Your task to perform on an android device: turn on showing notifications on the lock screen Image 0: 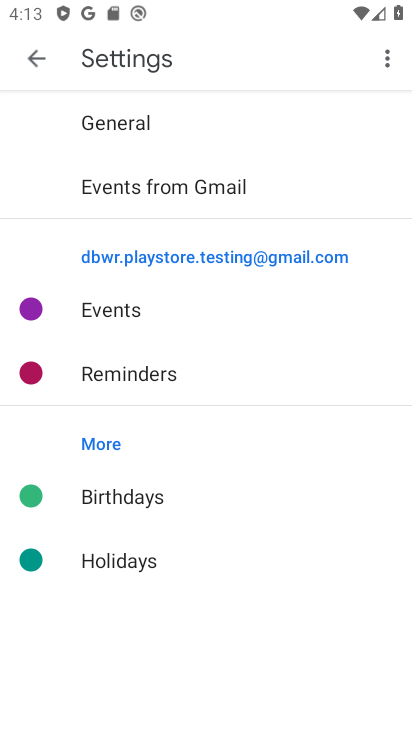
Step 0: press home button
Your task to perform on an android device: turn on showing notifications on the lock screen Image 1: 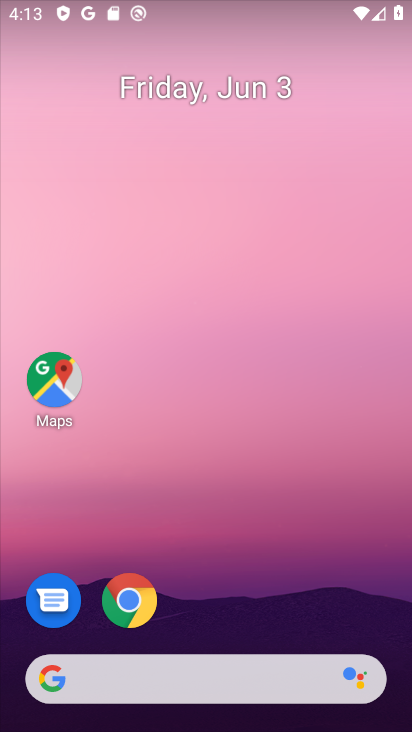
Step 1: click (320, 111)
Your task to perform on an android device: turn on showing notifications on the lock screen Image 2: 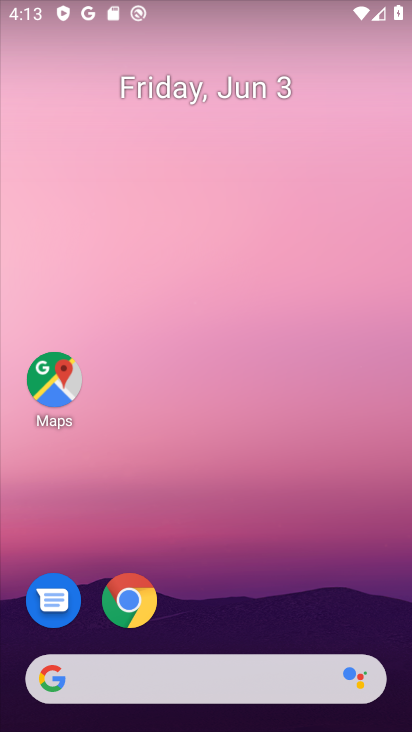
Step 2: drag from (389, 707) to (333, 8)
Your task to perform on an android device: turn on showing notifications on the lock screen Image 3: 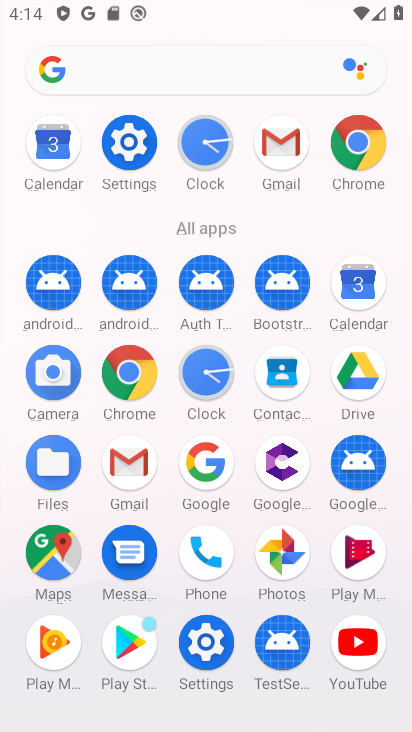
Step 3: click (133, 135)
Your task to perform on an android device: turn on showing notifications on the lock screen Image 4: 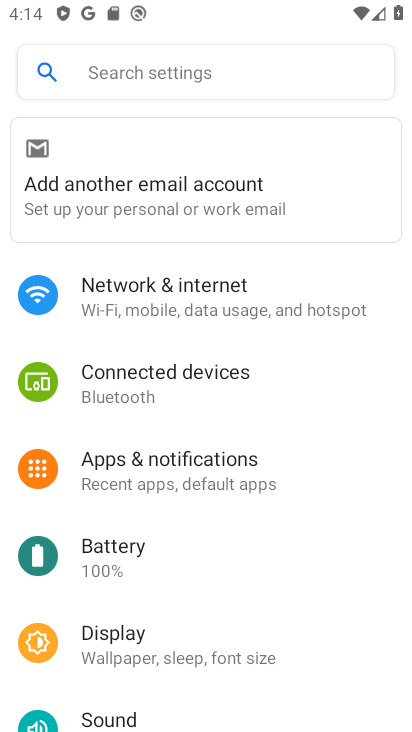
Step 4: click (161, 471)
Your task to perform on an android device: turn on showing notifications on the lock screen Image 5: 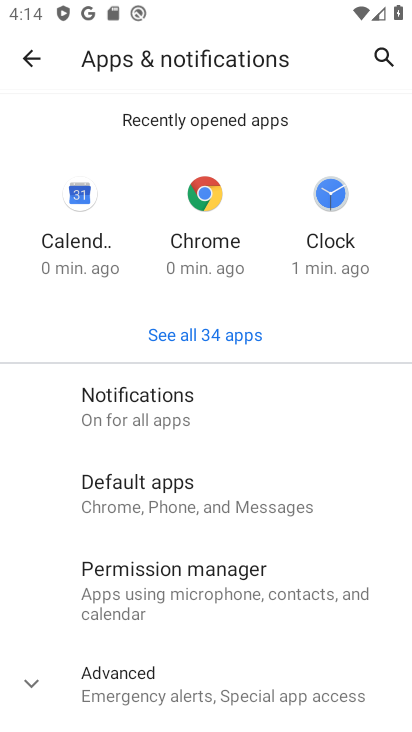
Step 5: click (145, 407)
Your task to perform on an android device: turn on showing notifications on the lock screen Image 6: 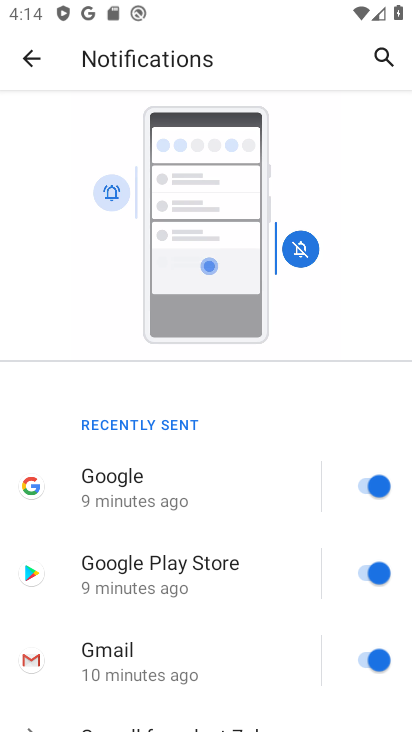
Step 6: drag from (238, 676) to (178, 105)
Your task to perform on an android device: turn on showing notifications on the lock screen Image 7: 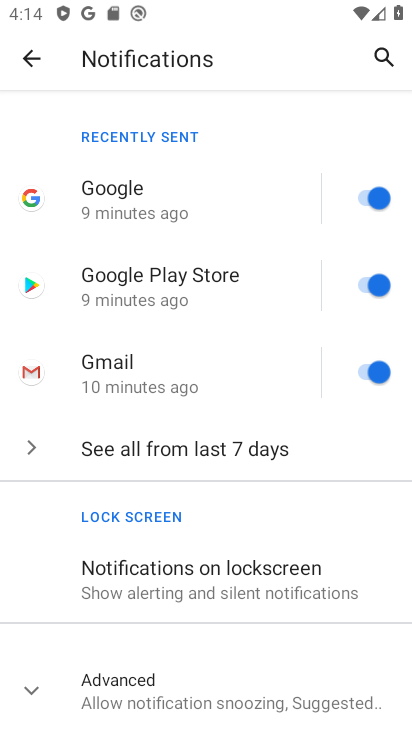
Step 7: click (155, 568)
Your task to perform on an android device: turn on showing notifications on the lock screen Image 8: 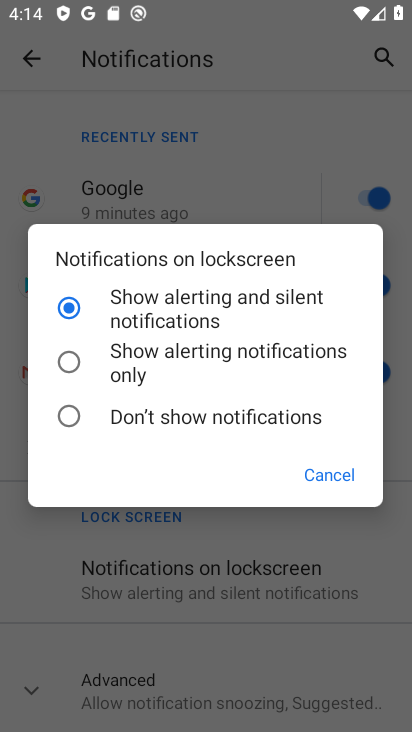
Step 8: task complete